Your task to perform on an android device: Open settings Image 0: 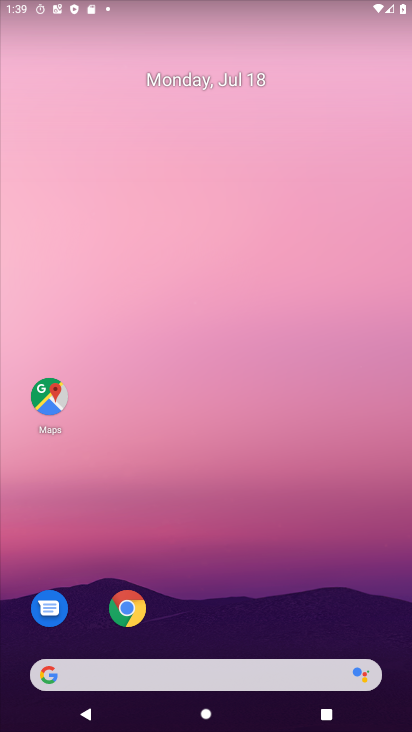
Step 0: drag from (245, 591) to (260, 154)
Your task to perform on an android device: Open settings Image 1: 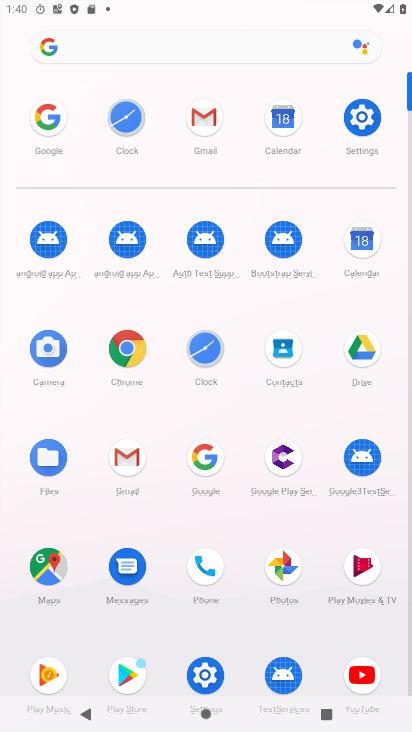
Step 1: click (359, 111)
Your task to perform on an android device: Open settings Image 2: 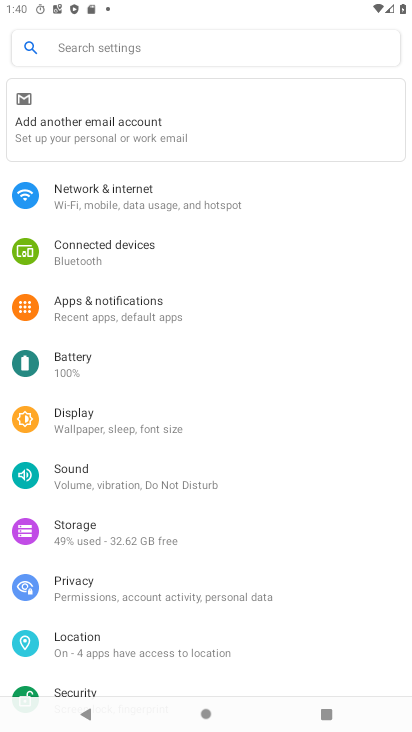
Step 2: task complete